Your task to perform on an android device: Open sound settings Image 0: 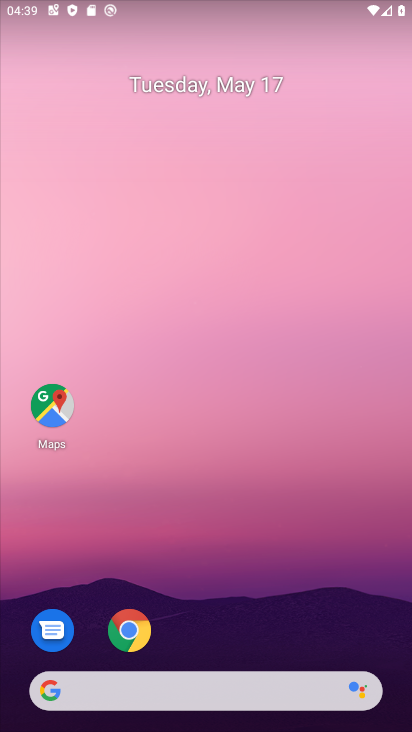
Step 0: drag from (189, 629) to (249, 79)
Your task to perform on an android device: Open sound settings Image 1: 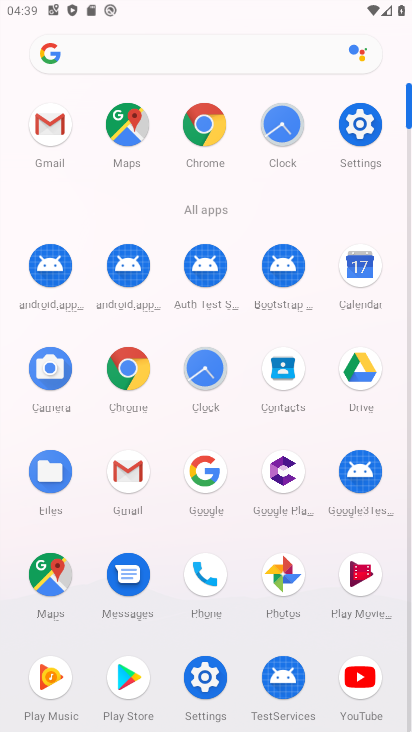
Step 1: click (363, 119)
Your task to perform on an android device: Open sound settings Image 2: 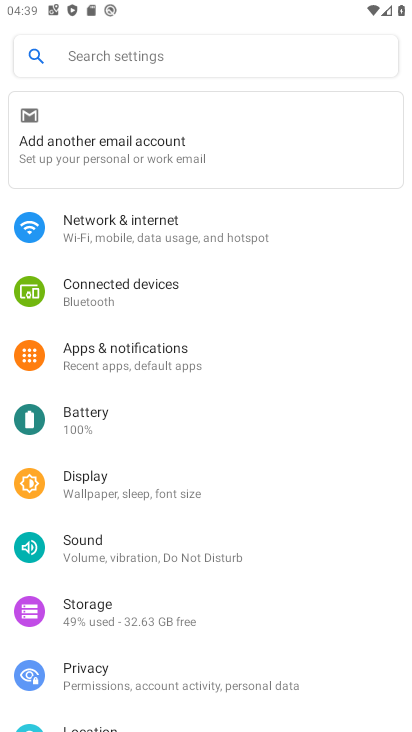
Step 2: click (83, 541)
Your task to perform on an android device: Open sound settings Image 3: 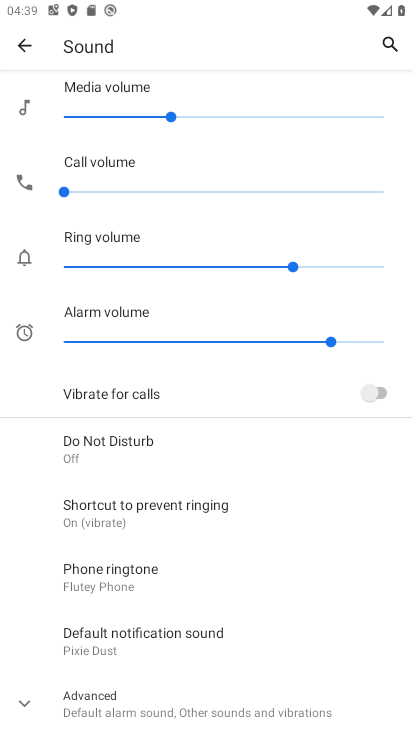
Step 3: task complete